Your task to perform on an android device: Set the phone to "Do not disturb". Image 0: 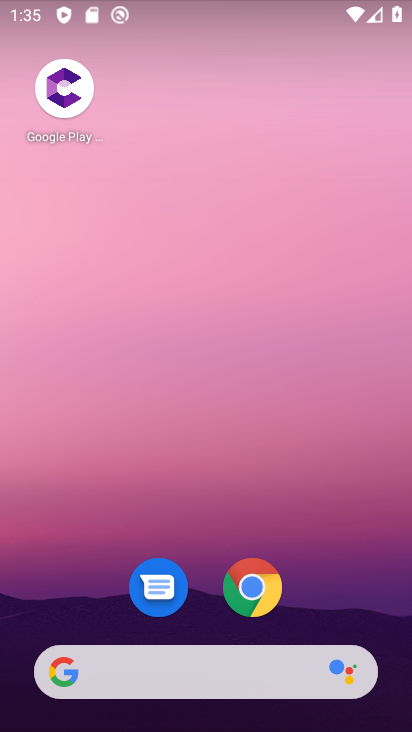
Step 0: drag from (319, 595) to (323, 87)
Your task to perform on an android device: Set the phone to "Do not disturb". Image 1: 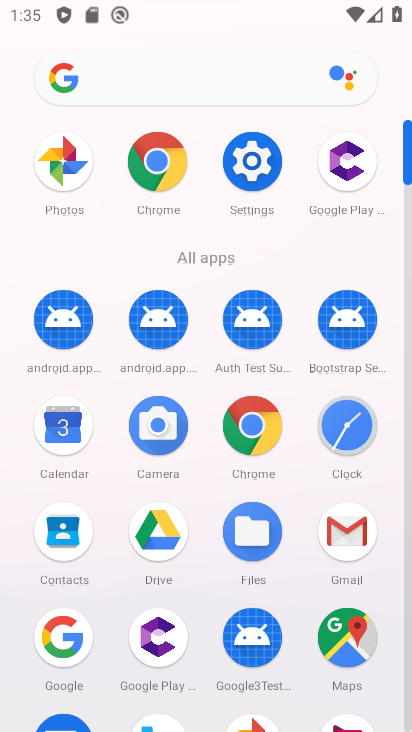
Step 1: click (244, 166)
Your task to perform on an android device: Set the phone to "Do not disturb". Image 2: 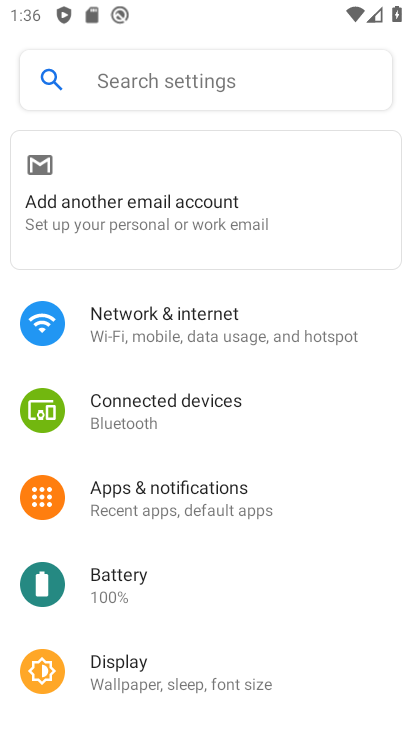
Step 2: drag from (155, 700) to (170, 349)
Your task to perform on an android device: Set the phone to "Do not disturb". Image 3: 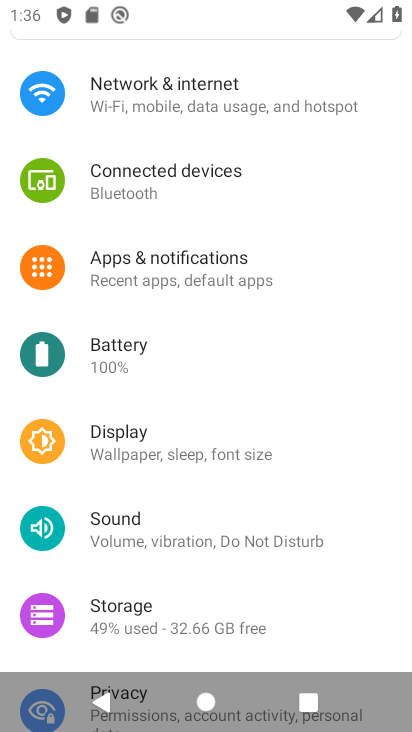
Step 3: click (248, 554)
Your task to perform on an android device: Set the phone to "Do not disturb". Image 4: 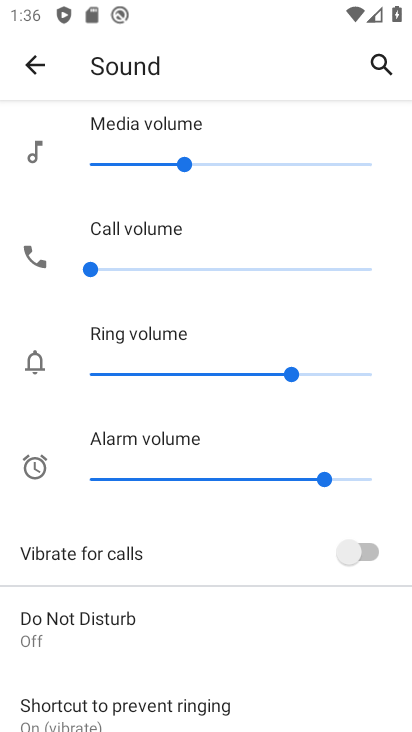
Step 4: click (171, 636)
Your task to perform on an android device: Set the phone to "Do not disturb". Image 5: 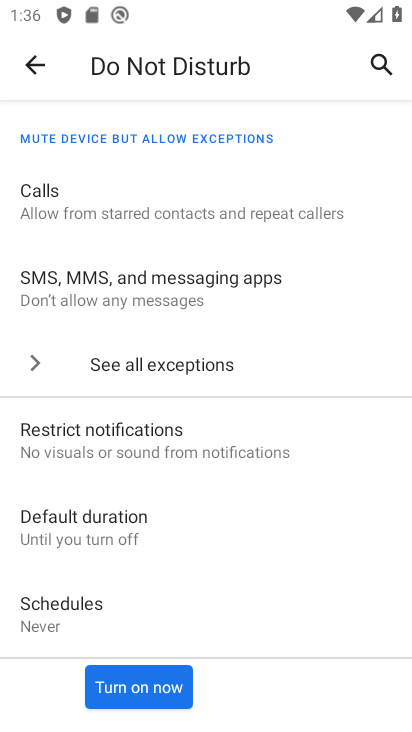
Step 5: click (148, 690)
Your task to perform on an android device: Set the phone to "Do not disturb". Image 6: 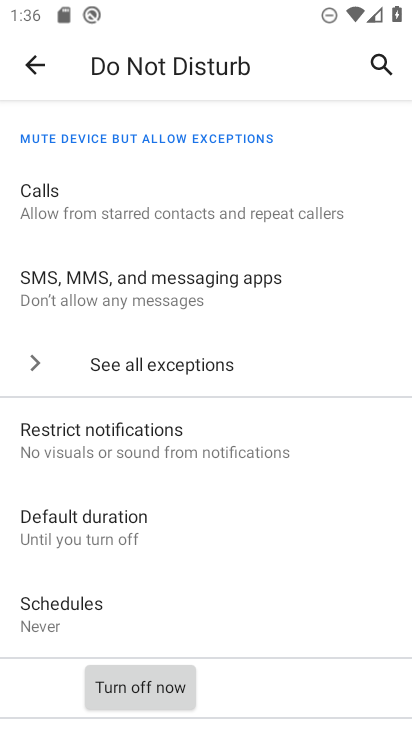
Step 6: task complete